Your task to perform on an android device: change the clock display to analog Image 0: 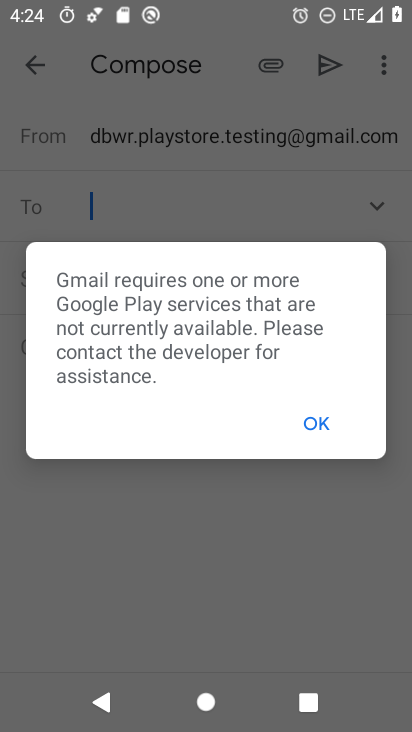
Step 0: press home button
Your task to perform on an android device: change the clock display to analog Image 1: 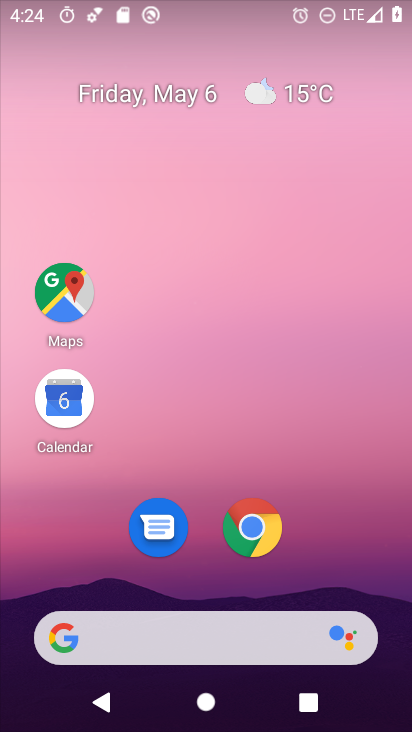
Step 1: drag from (327, 539) to (324, 86)
Your task to perform on an android device: change the clock display to analog Image 2: 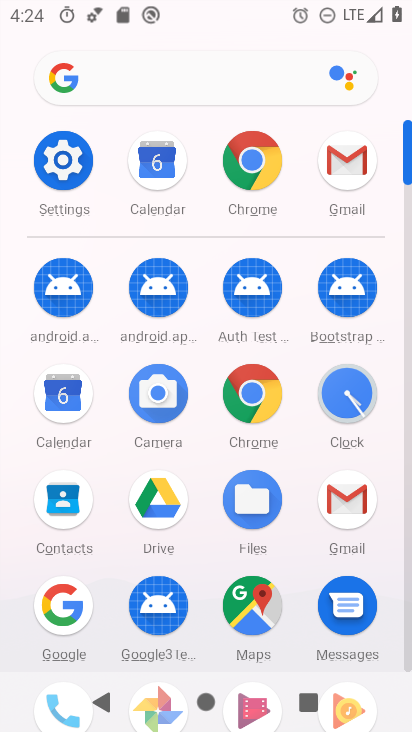
Step 2: click (351, 401)
Your task to perform on an android device: change the clock display to analog Image 3: 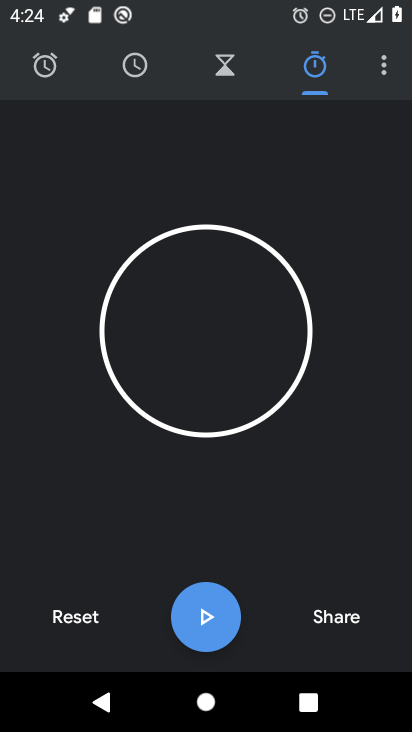
Step 3: click (381, 66)
Your task to perform on an android device: change the clock display to analog Image 4: 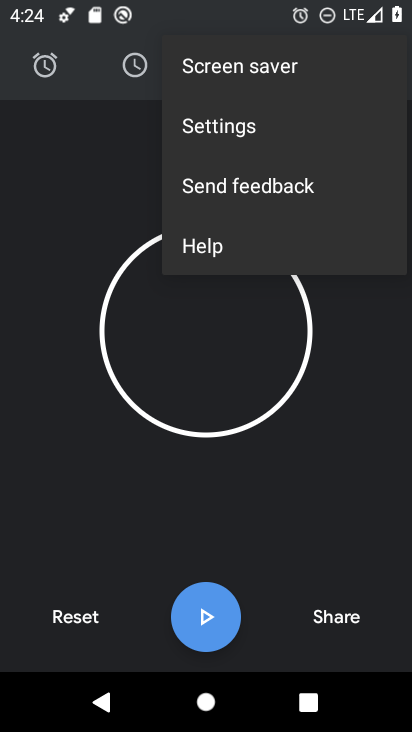
Step 4: click (213, 137)
Your task to perform on an android device: change the clock display to analog Image 5: 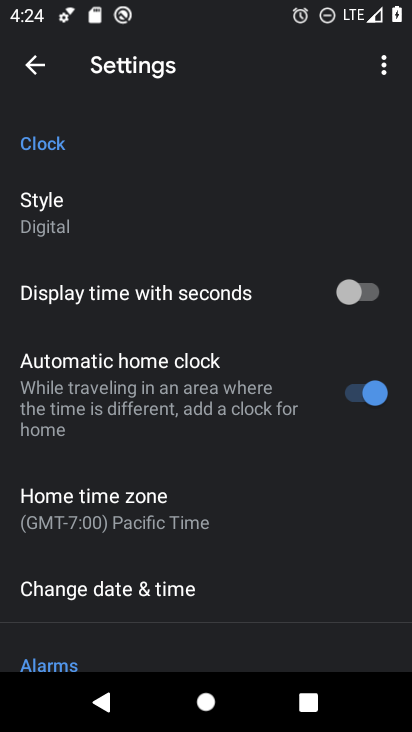
Step 5: click (57, 211)
Your task to perform on an android device: change the clock display to analog Image 6: 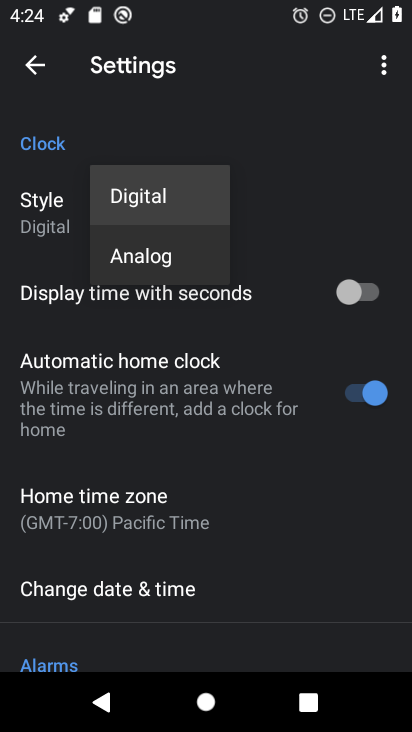
Step 6: click (150, 268)
Your task to perform on an android device: change the clock display to analog Image 7: 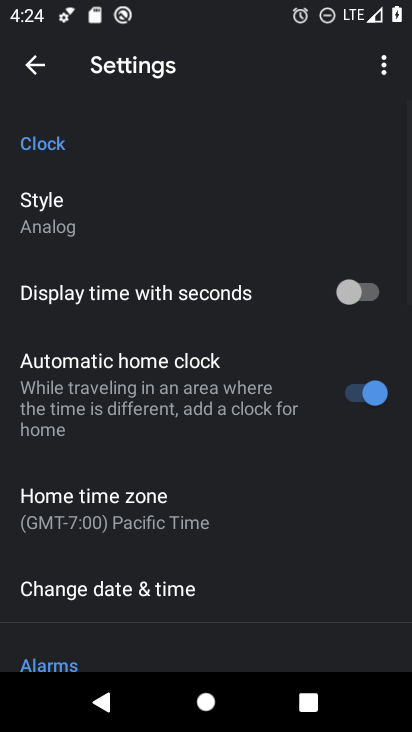
Step 7: task complete